Your task to perform on an android device: change the clock display to digital Image 0: 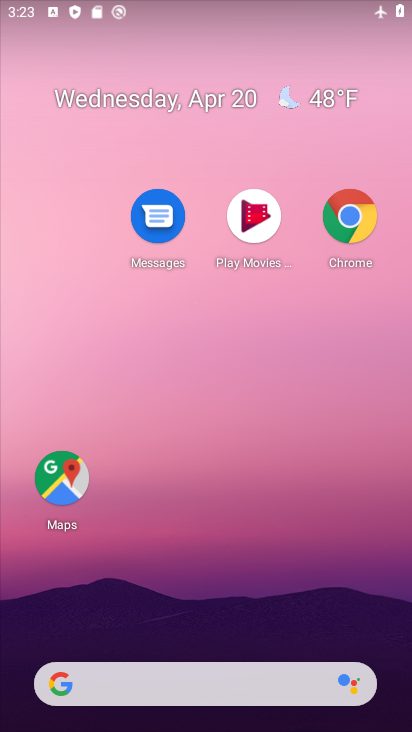
Step 0: drag from (275, 536) to (277, 116)
Your task to perform on an android device: change the clock display to digital Image 1: 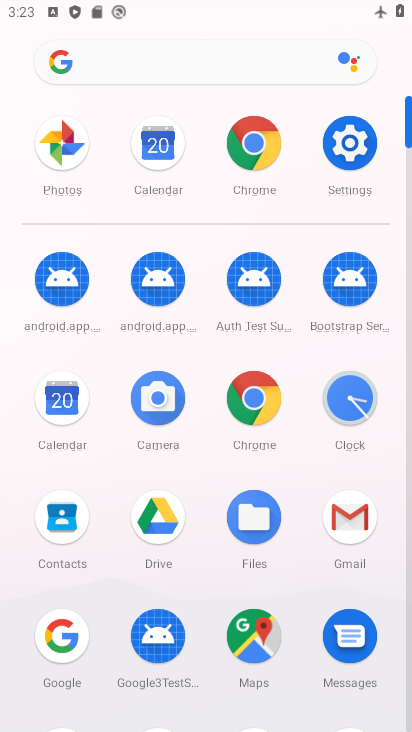
Step 1: click (352, 419)
Your task to perform on an android device: change the clock display to digital Image 2: 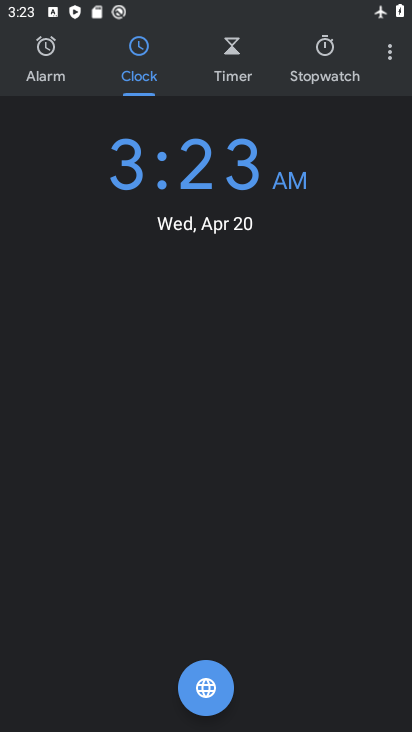
Step 2: click (395, 42)
Your task to perform on an android device: change the clock display to digital Image 3: 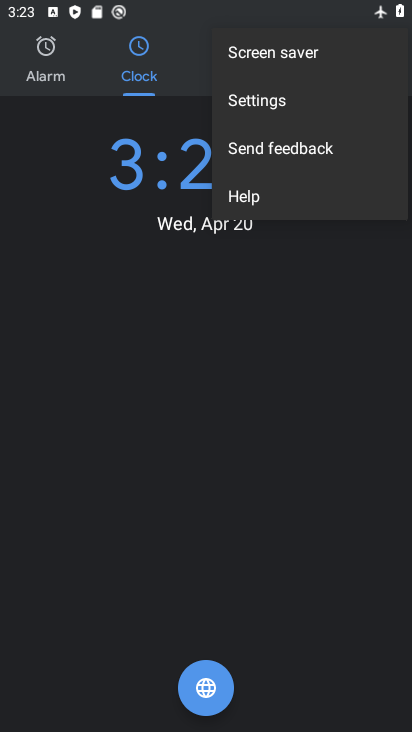
Step 3: click (288, 112)
Your task to perform on an android device: change the clock display to digital Image 4: 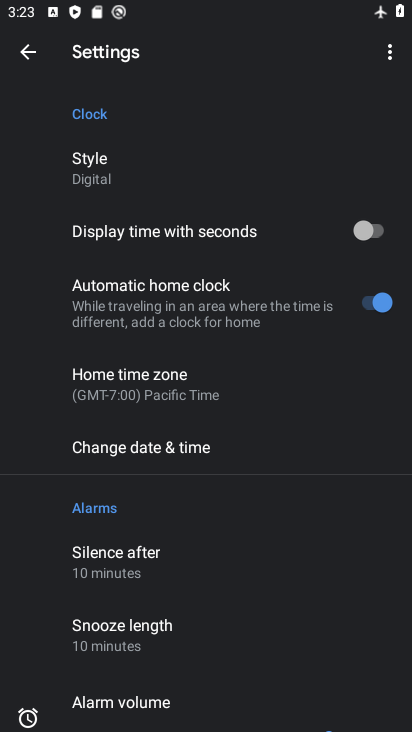
Step 4: task complete